Your task to perform on an android device: Open the phone app and click the voicemail tab. Image 0: 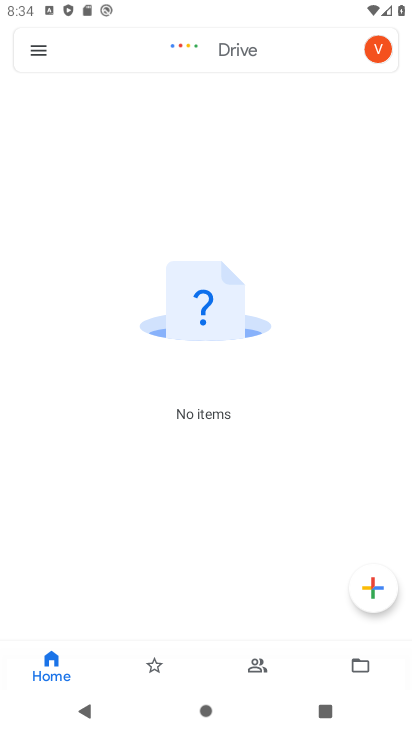
Step 0: press home button
Your task to perform on an android device: Open the phone app and click the voicemail tab. Image 1: 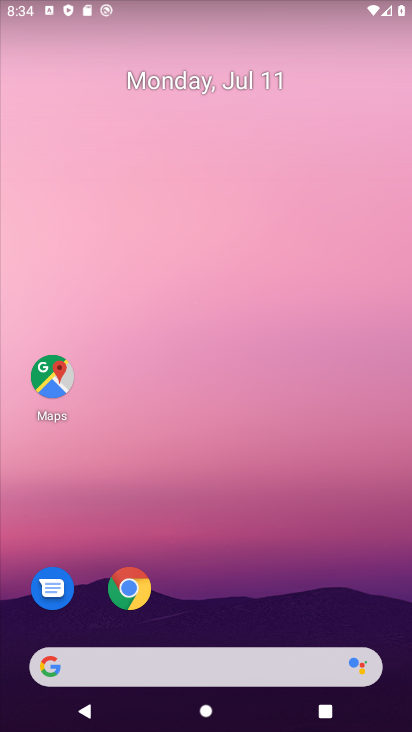
Step 1: drag from (359, 621) to (190, 23)
Your task to perform on an android device: Open the phone app and click the voicemail tab. Image 2: 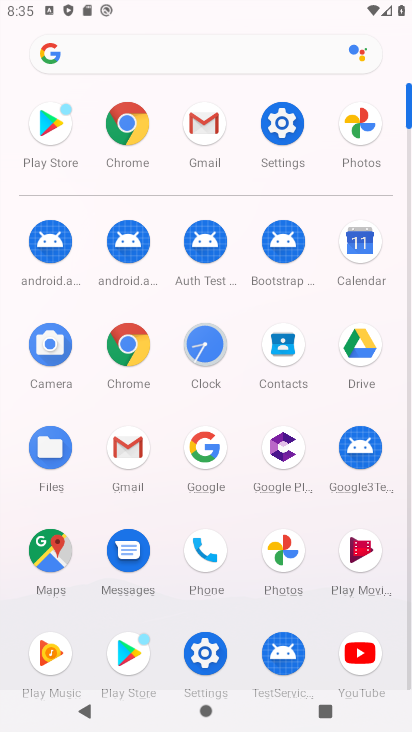
Step 2: click (68, 568)
Your task to perform on an android device: Open the phone app and click the voicemail tab. Image 3: 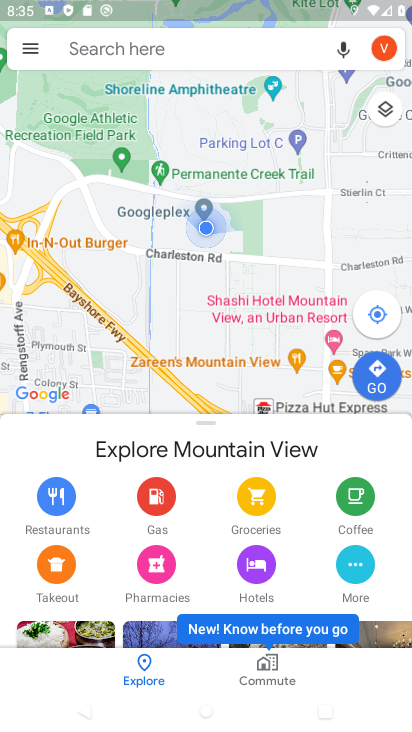
Step 3: press home button
Your task to perform on an android device: Open the phone app and click the voicemail tab. Image 4: 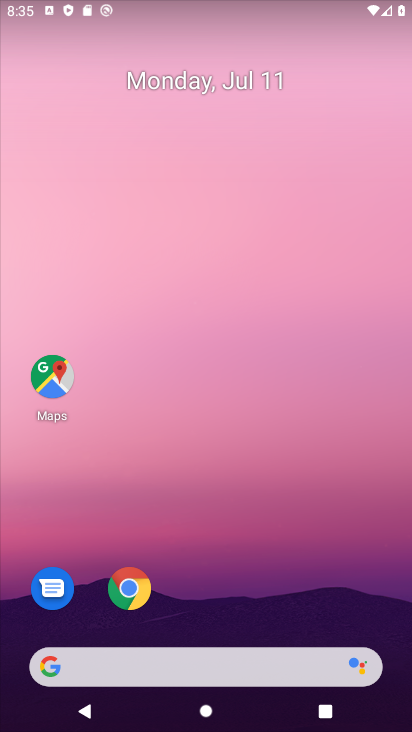
Step 4: drag from (389, 653) to (322, 124)
Your task to perform on an android device: Open the phone app and click the voicemail tab. Image 5: 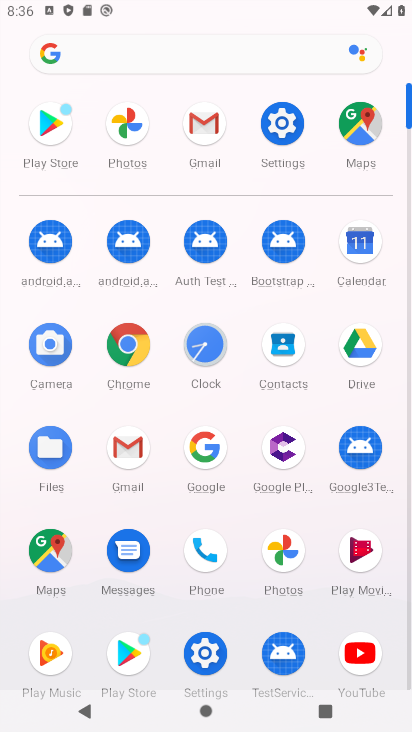
Step 5: click (196, 551)
Your task to perform on an android device: Open the phone app and click the voicemail tab. Image 6: 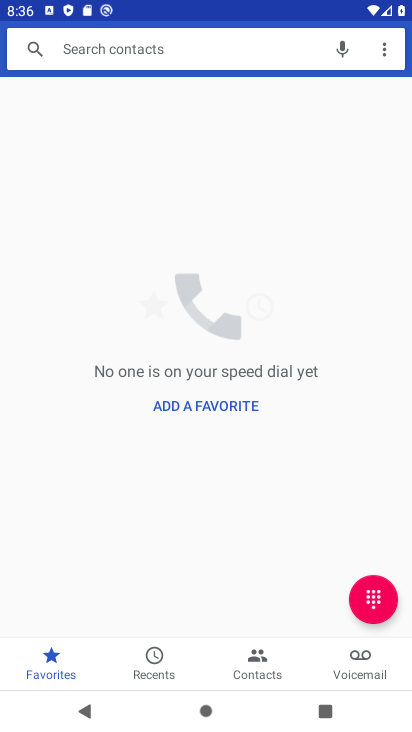
Step 6: click (348, 662)
Your task to perform on an android device: Open the phone app and click the voicemail tab. Image 7: 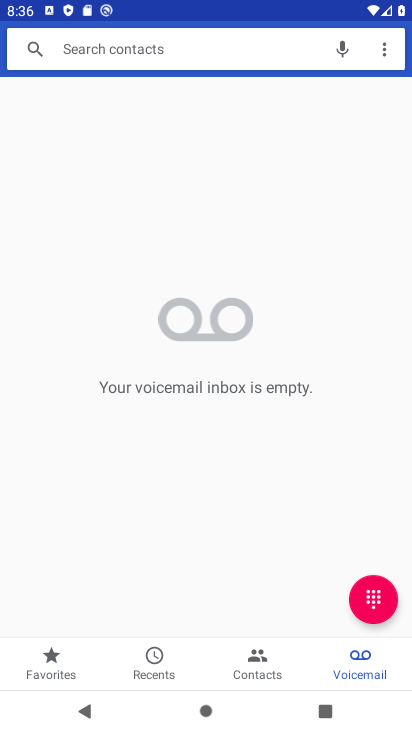
Step 7: task complete